Your task to perform on an android device: open chrome and create a bookmark for the current page Image 0: 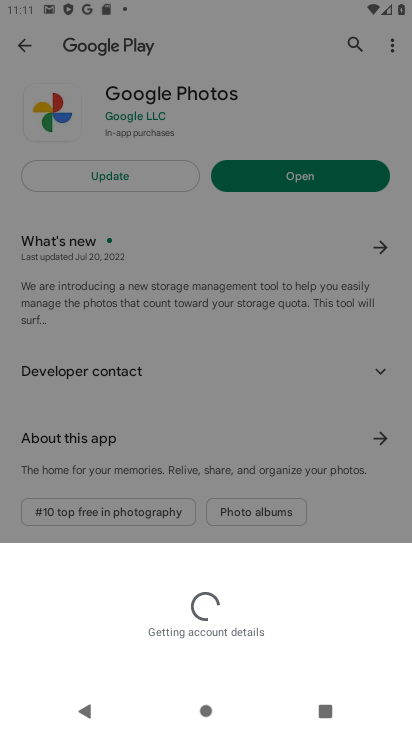
Step 0: click (211, 146)
Your task to perform on an android device: open chrome and create a bookmark for the current page Image 1: 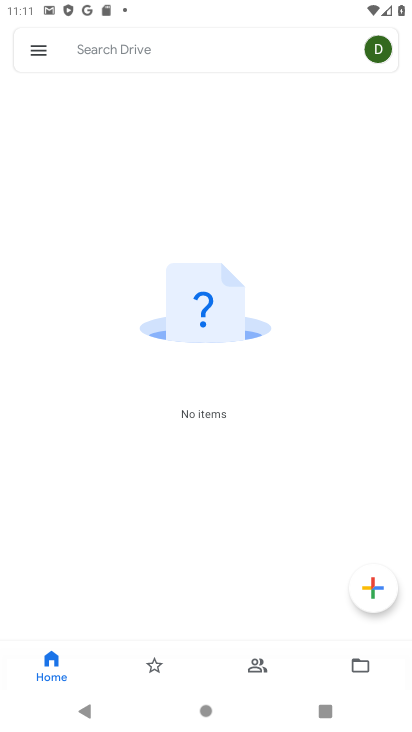
Step 1: drag from (182, 610) to (176, 217)
Your task to perform on an android device: open chrome and create a bookmark for the current page Image 2: 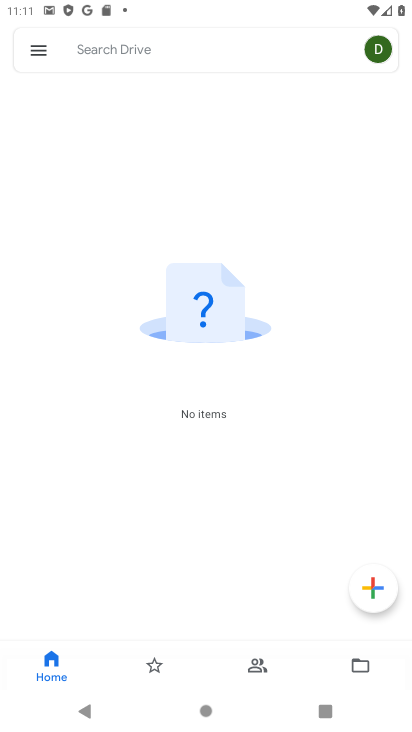
Step 2: press home button
Your task to perform on an android device: open chrome and create a bookmark for the current page Image 3: 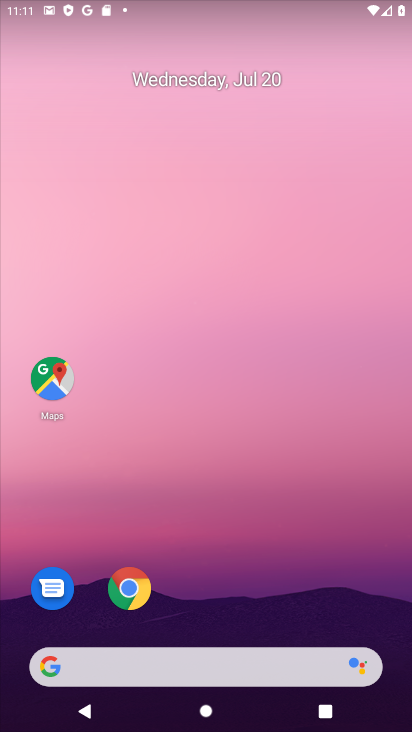
Step 3: drag from (170, 618) to (231, 164)
Your task to perform on an android device: open chrome and create a bookmark for the current page Image 4: 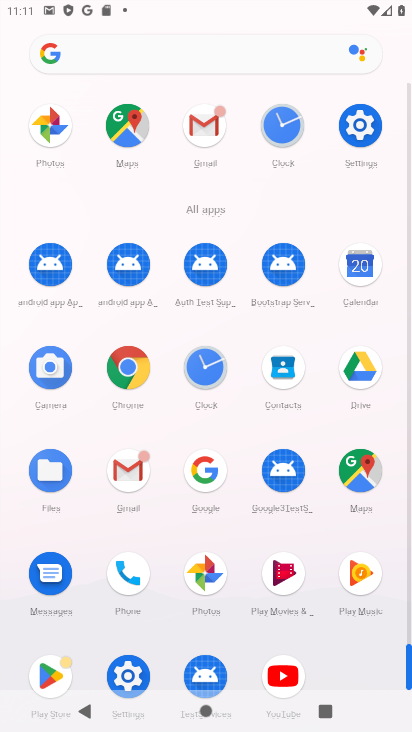
Step 4: click (114, 364)
Your task to perform on an android device: open chrome and create a bookmark for the current page Image 5: 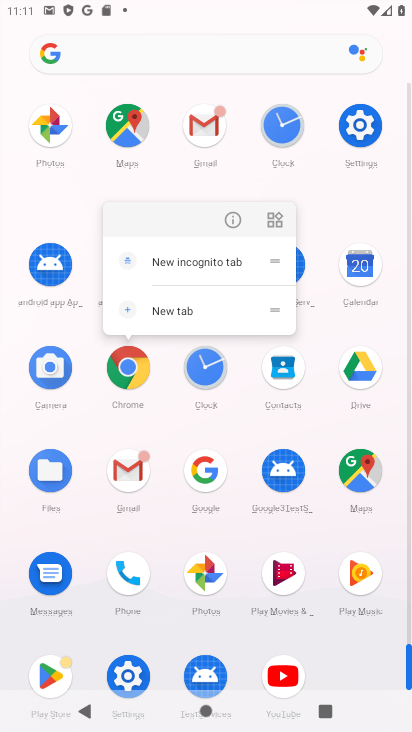
Step 5: click (227, 218)
Your task to perform on an android device: open chrome and create a bookmark for the current page Image 6: 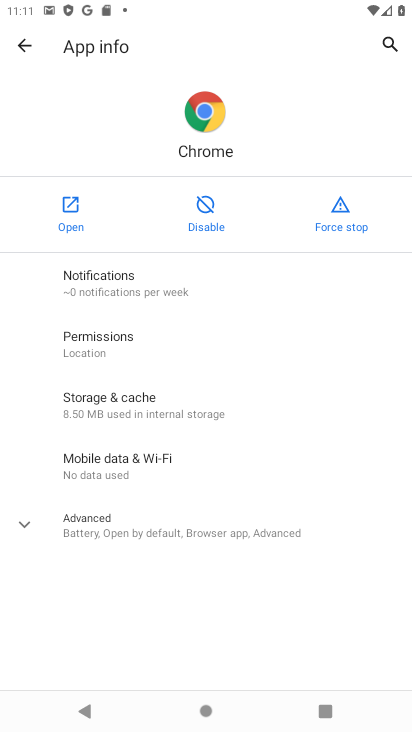
Step 6: click (73, 219)
Your task to perform on an android device: open chrome and create a bookmark for the current page Image 7: 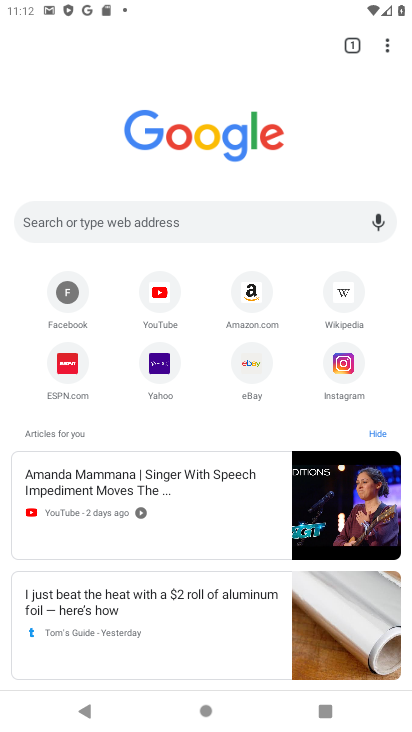
Step 7: task complete